Your task to perform on an android device: open app "Gboard" (install if not already installed) Image 0: 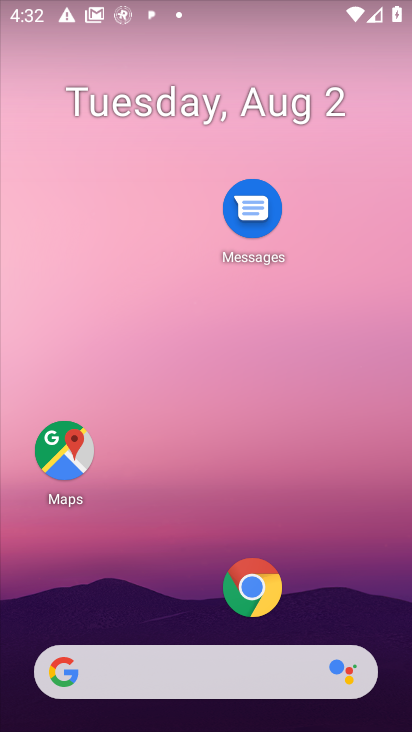
Step 0: drag from (166, 614) to (168, 171)
Your task to perform on an android device: open app "Gboard" (install if not already installed) Image 1: 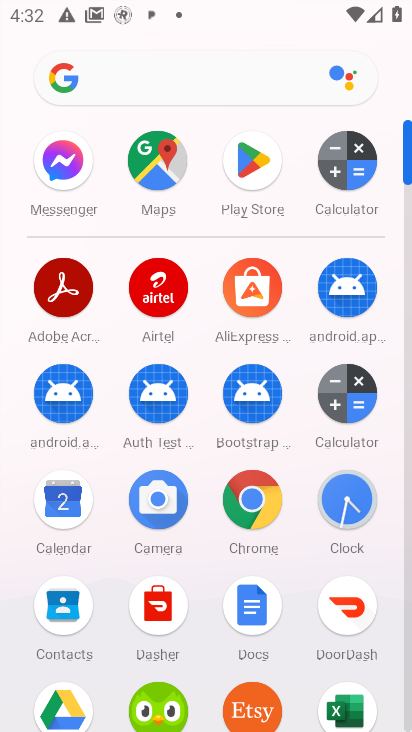
Step 1: click (247, 160)
Your task to perform on an android device: open app "Gboard" (install if not already installed) Image 2: 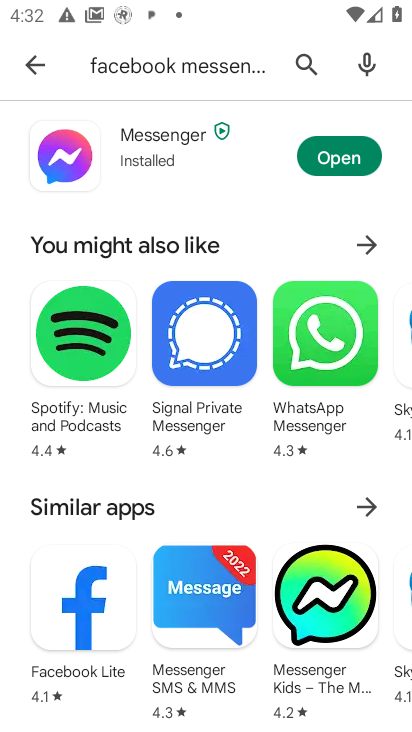
Step 2: click (306, 72)
Your task to perform on an android device: open app "Gboard" (install if not already installed) Image 3: 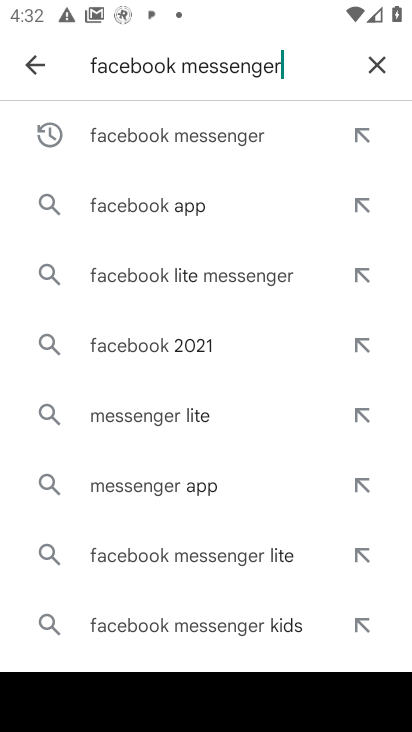
Step 3: click (379, 61)
Your task to perform on an android device: open app "Gboard" (install if not already installed) Image 4: 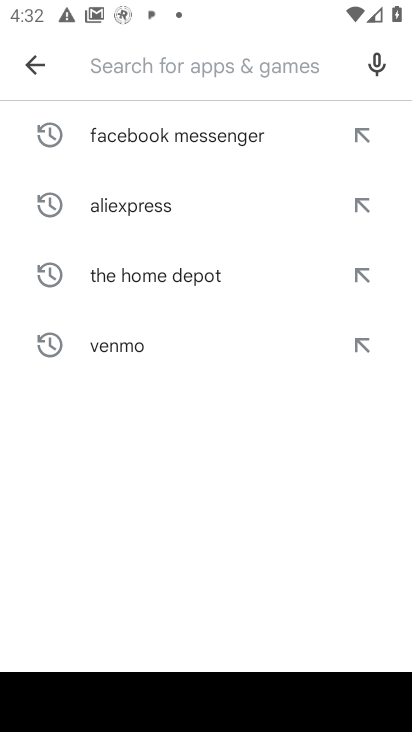
Step 4: click (172, 54)
Your task to perform on an android device: open app "Gboard" (install if not already installed) Image 5: 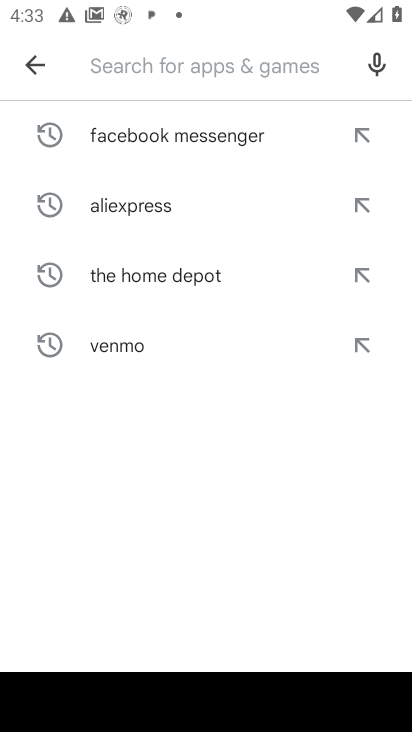
Step 5: type "Gboard"
Your task to perform on an android device: open app "Gboard" (install if not already installed) Image 6: 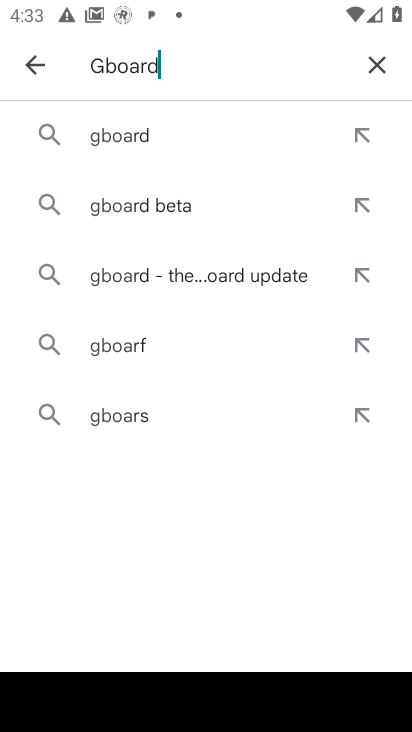
Step 6: type ""
Your task to perform on an android device: open app "Gboard" (install if not already installed) Image 7: 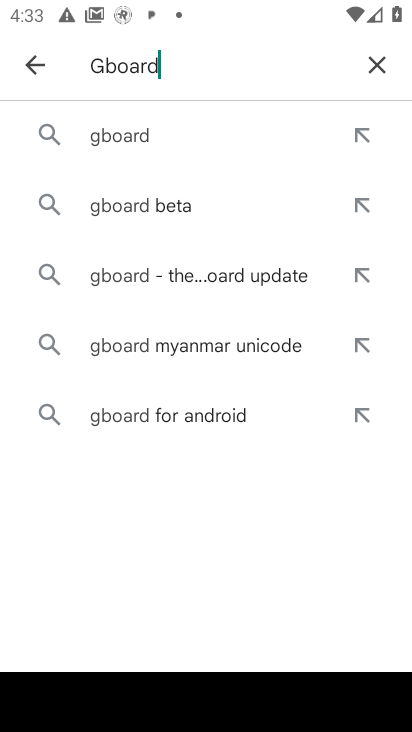
Step 7: click (118, 130)
Your task to perform on an android device: open app "Gboard" (install if not already installed) Image 8: 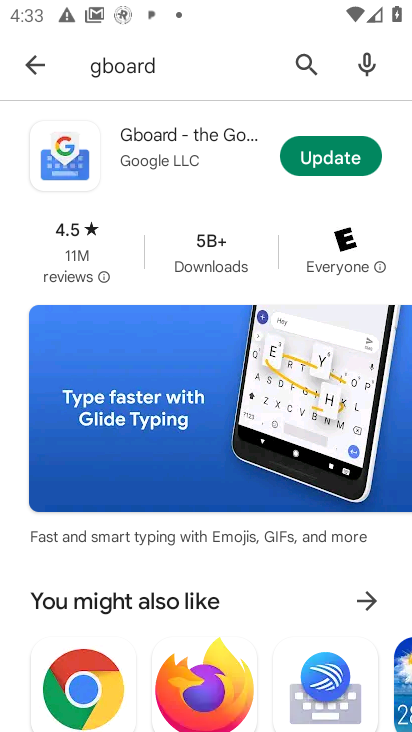
Step 8: click (221, 156)
Your task to perform on an android device: open app "Gboard" (install if not already installed) Image 9: 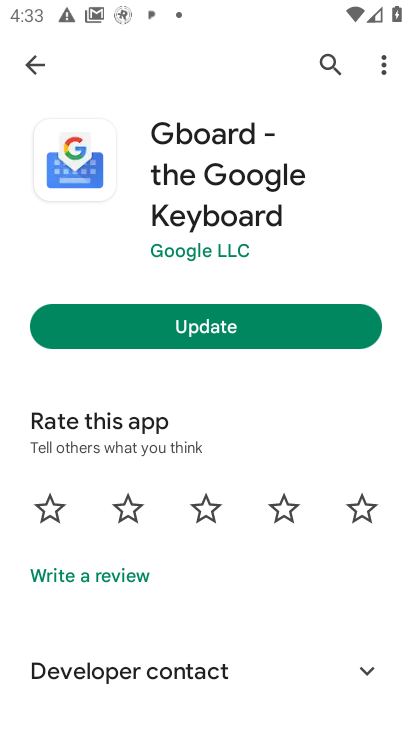
Step 9: click (289, 324)
Your task to perform on an android device: open app "Gboard" (install if not already installed) Image 10: 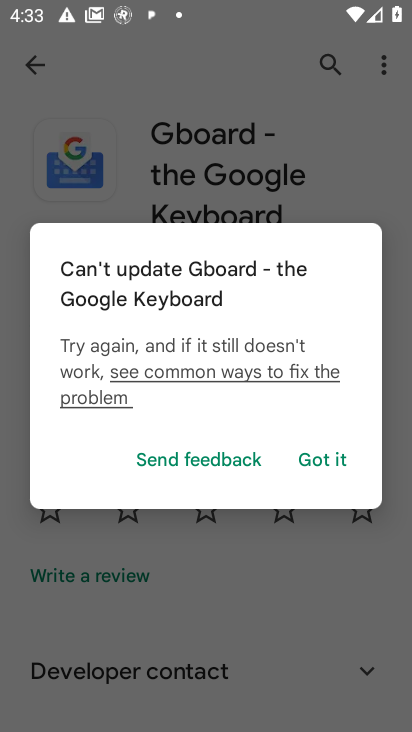
Step 10: click (304, 458)
Your task to perform on an android device: open app "Gboard" (install if not already installed) Image 11: 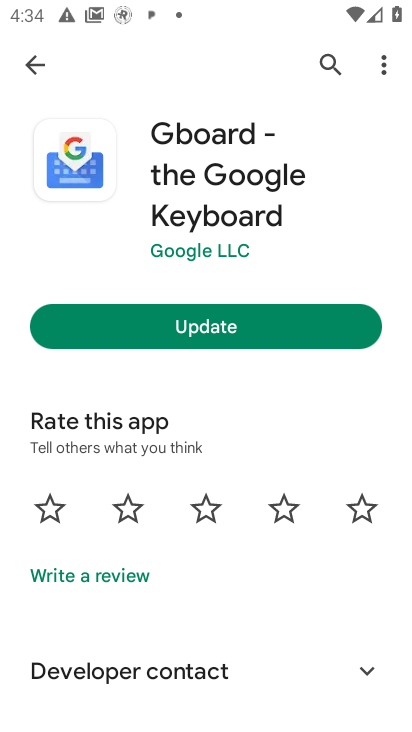
Step 11: task complete